Your task to perform on an android device: Open Google Maps Image 0: 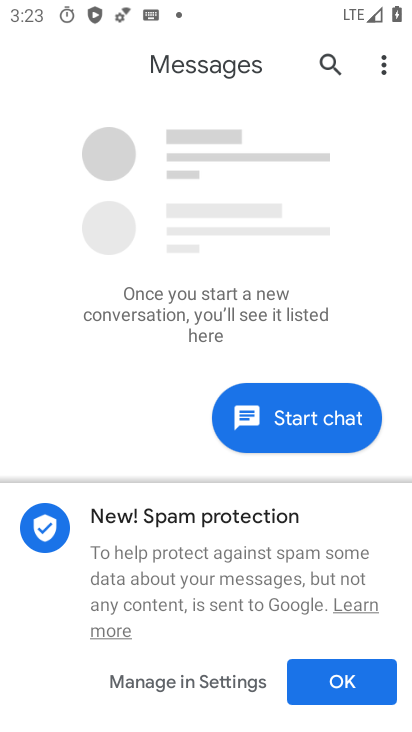
Step 0: press home button
Your task to perform on an android device: Open Google Maps Image 1: 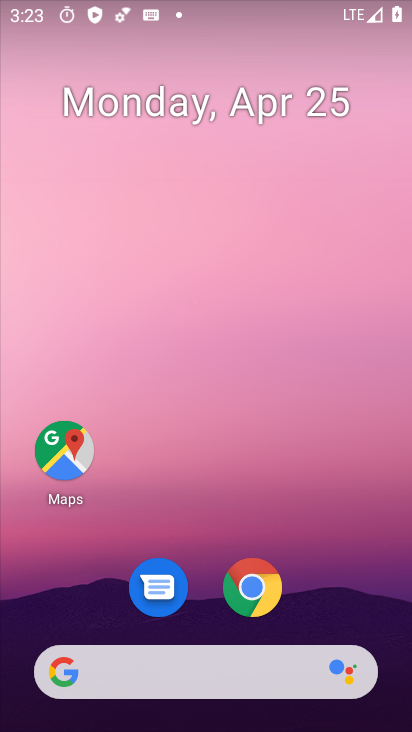
Step 1: drag from (303, 599) to (234, 3)
Your task to perform on an android device: Open Google Maps Image 2: 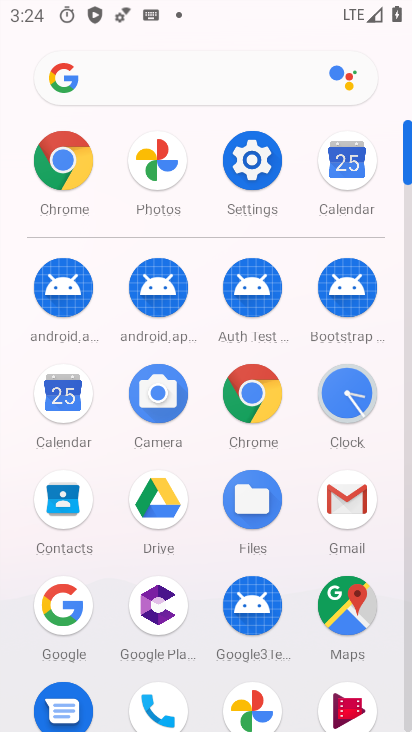
Step 2: click (342, 614)
Your task to perform on an android device: Open Google Maps Image 3: 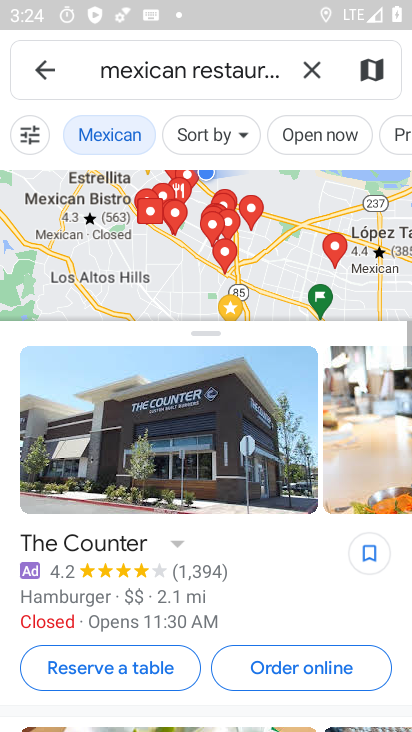
Step 3: task complete